Your task to perform on an android device: allow notifications from all sites in the chrome app Image 0: 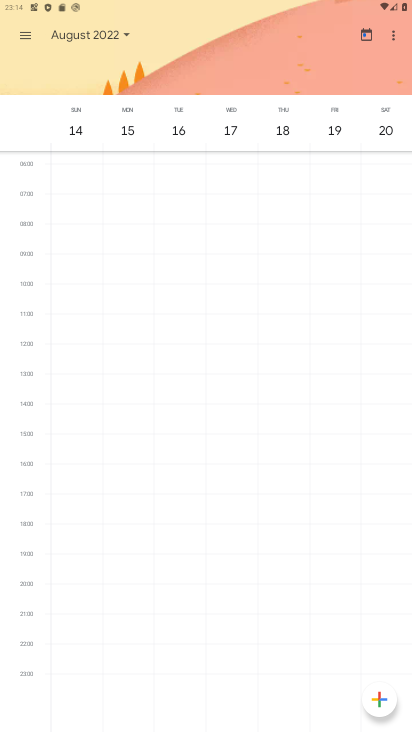
Step 0: press home button
Your task to perform on an android device: allow notifications from all sites in the chrome app Image 1: 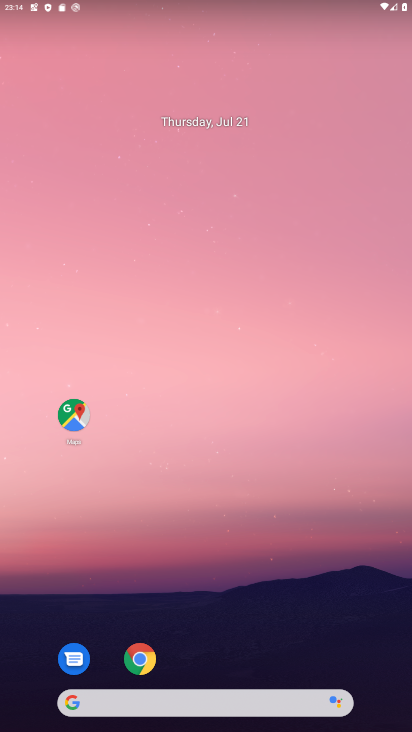
Step 1: drag from (298, 564) to (264, 12)
Your task to perform on an android device: allow notifications from all sites in the chrome app Image 2: 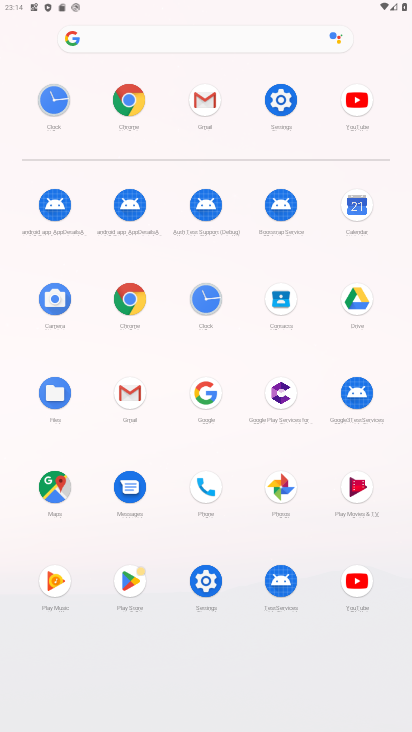
Step 2: click (121, 303)
Your task to perform on an android device: allow notifications from all sites in the chrome app Image 3: 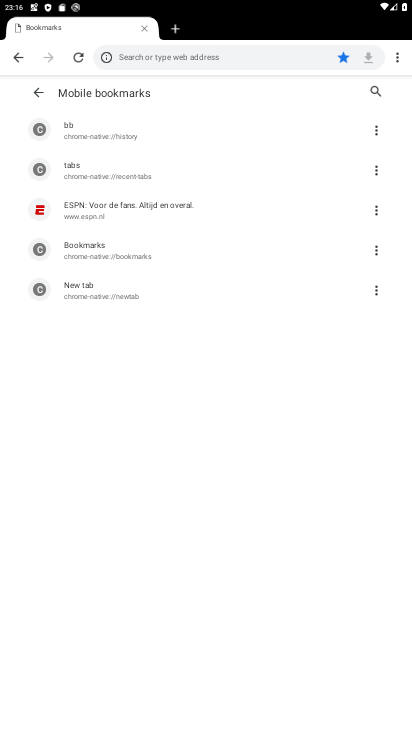
Step 3: press home button
Your task to perform on an android device: allow notifications from all sites in the chrome app Image 4: 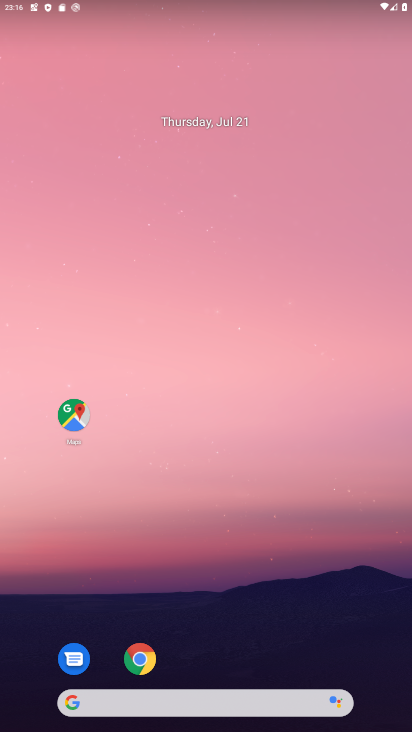
Step 4: drag from (292, 635) to (316, 94)
Your task to perform on an android device: allow notifications from all sites in the chrome app Image 5: 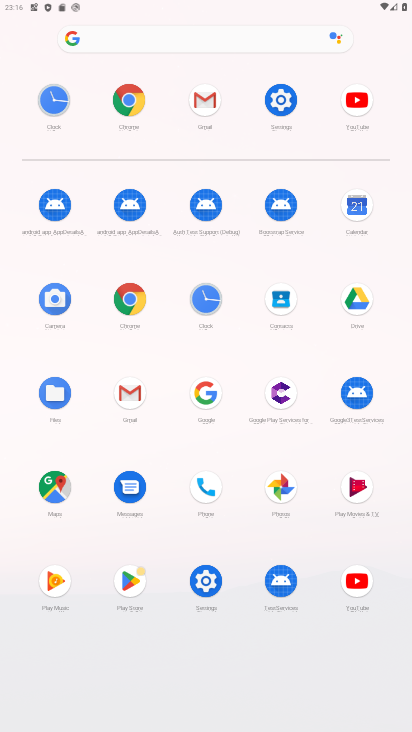
Step 5: click (133, 103)
Your task to perform on an android device: allow notifications from all sites in the chrome app Image 6: 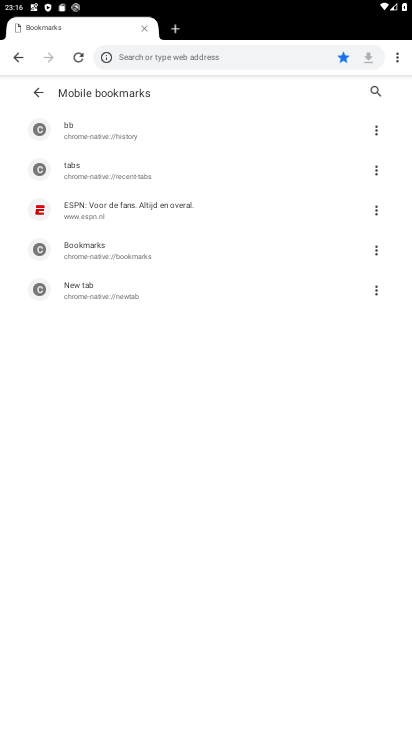
Step 6: drag from (397, 54) to (275, 266)
Your task to perform on an android device: allow notifications from all sites in the chrome app Image 7: 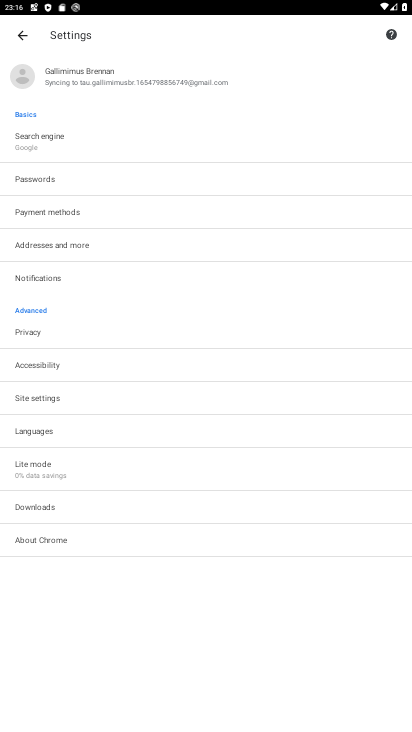
Step 7: click (61, 397)
Your task to perform on an android device: allow notifications from all sites in the chrome app Image 8: 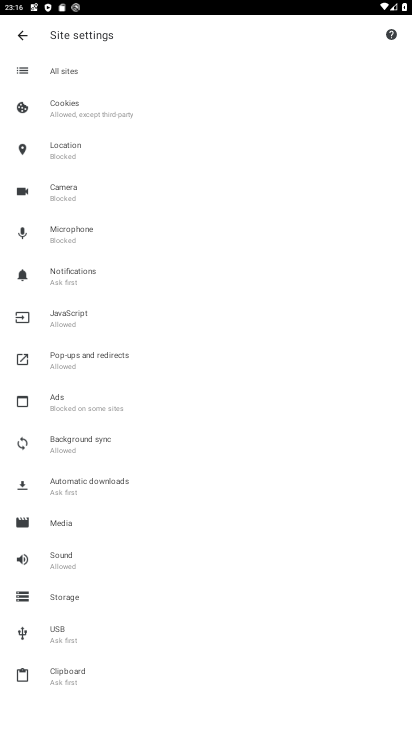
Step 8: click (85, 281)
Your task to perform on an android device: allow notifications from all sites in the chrome app Image 9: 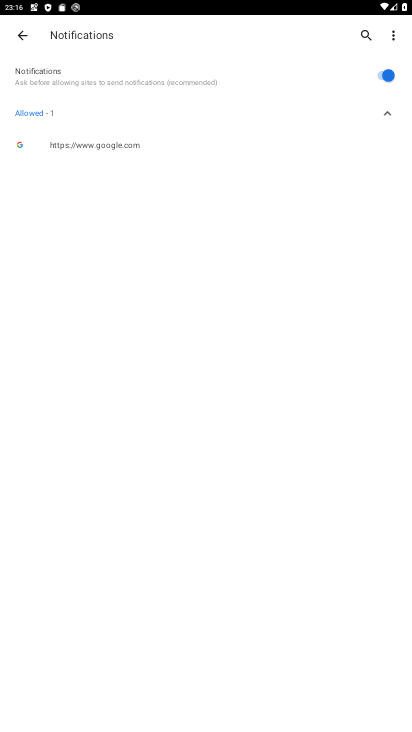
Step 9: task complete